Your task to perform on an android device: Show me recent news Image 0: 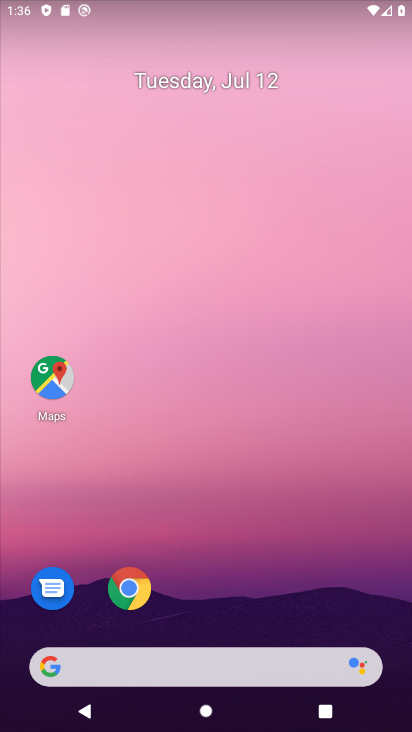
Step 0: click (163, 658)
Your task to perform on an android device: Show me recent news Image 1: 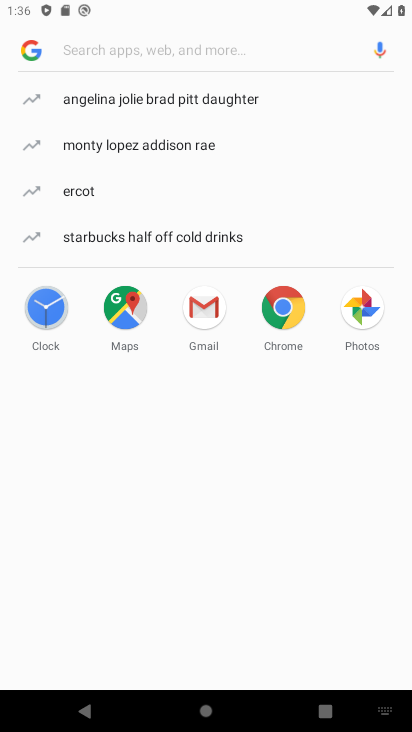
Step 1: click (48, 37)
Your task to perform on an android device: Show me recent news Image 2: 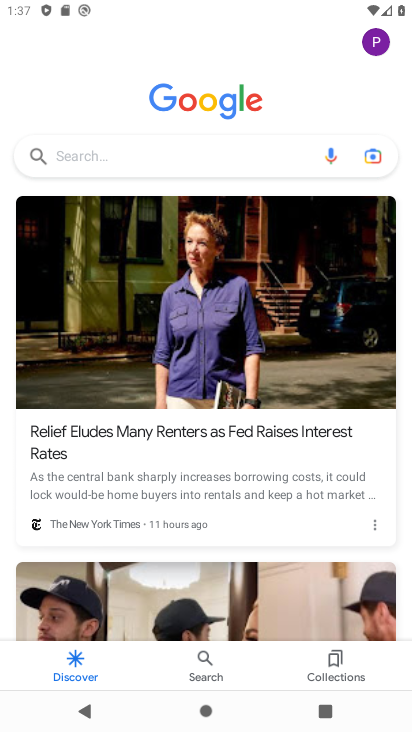
Step 2: task complete